Your task to perform on an android device: Go to Reddit.com Image 0: 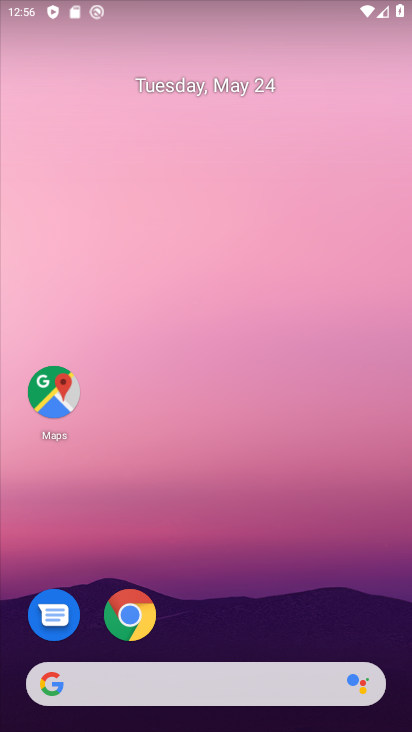
Step 0: click (129, 606)
Your task to perform on an android device: Go to Reddit.com Image 1: 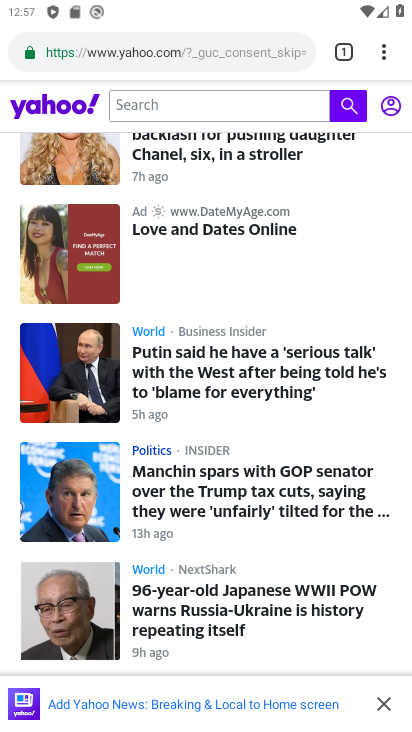
Step 1: click (129, 606)
Your task to perform on an android device: Go to Reddit.com Image 2: 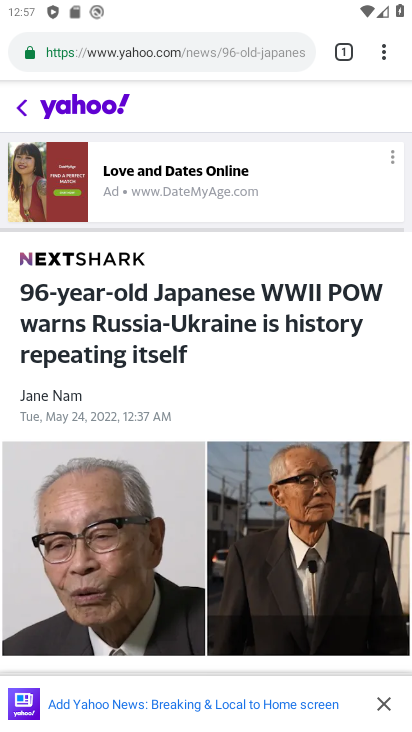
Step 2: click (343, 48)
Your task to perform on an android device: Go to Reddit.com Image 3: 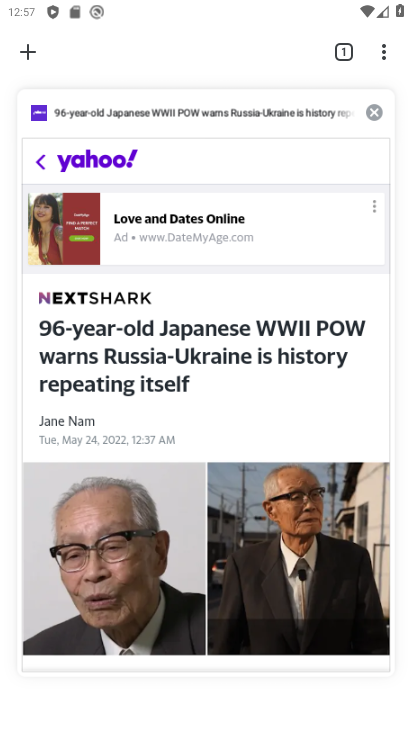
Step 3: click (374, 103)
Your task to perform on an android device: Go to Reddit.com Image 4: 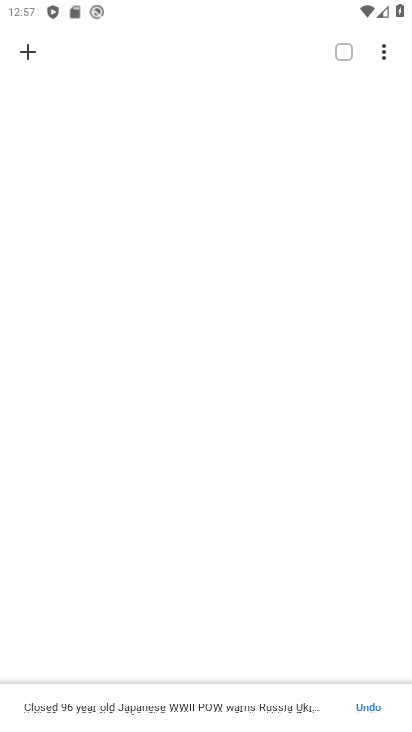
Step 4: click (31, 50)
Your task to perform on an android device: Go to Reddit.com Image 5: 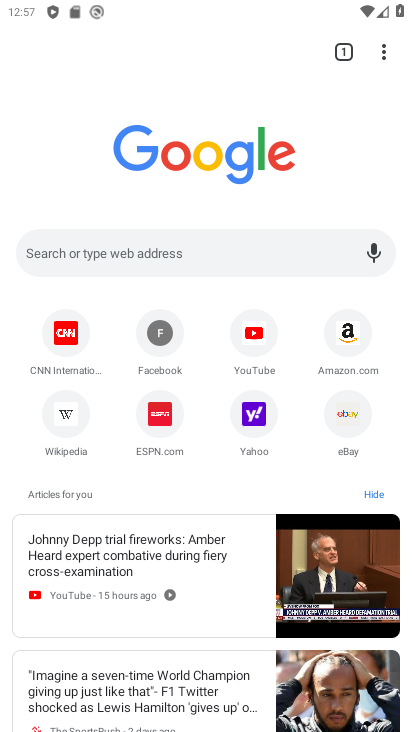
Step 5: click (388, 47)
Your task to perform on an android device: Go to Reddit.com Image 6: 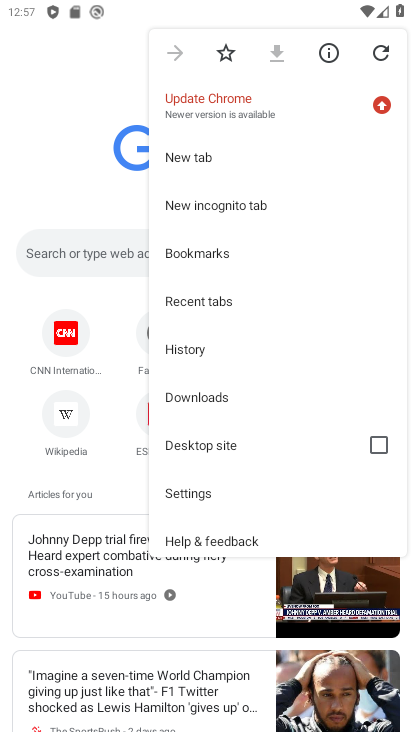
Step 6: click (64, 178)
Your task to perform on an android device: Go to Reddit.com Image 7: 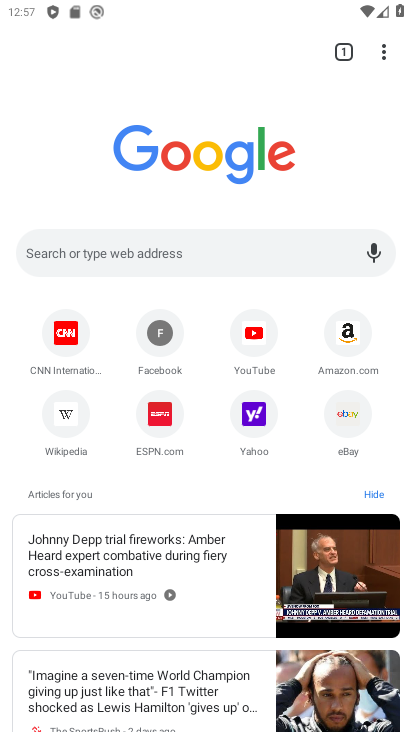
Step 7: click (118, 251)
Your task to perform on an android device: Go to Reddit.com Image 8: 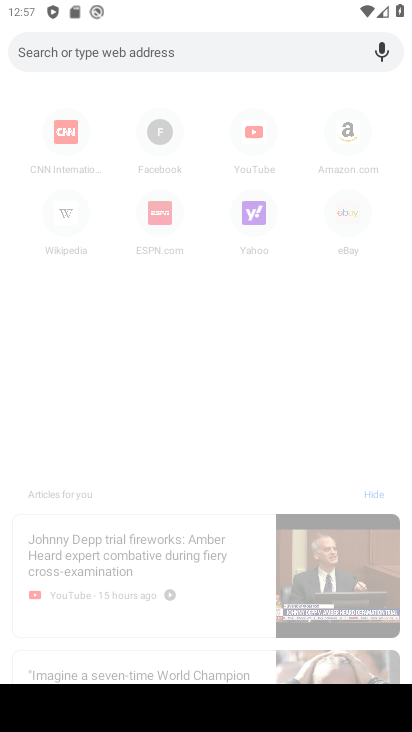
Step 8: type "reddit"
Your task to perform on an android device: Go to Reddit.com Image 9: 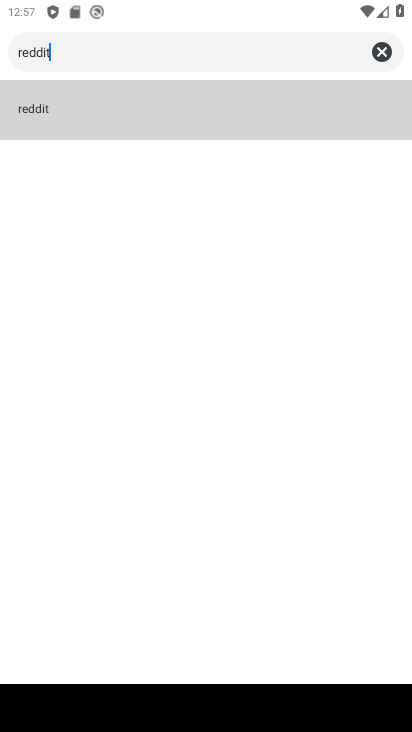
Step 9: type ""
Your task to perform on an android device: Go to Reddit.com Image 10: 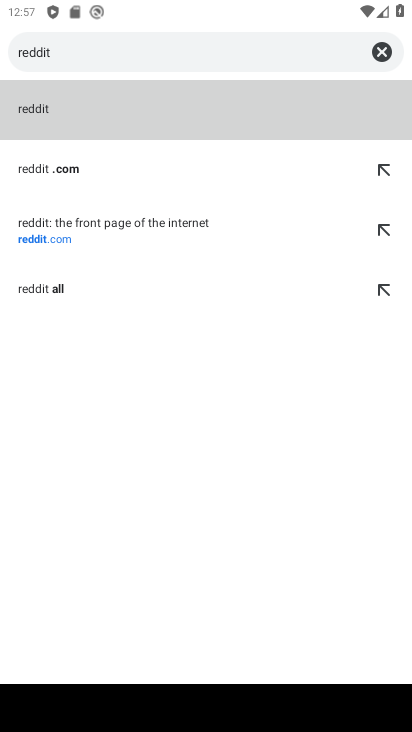
Step 10: click (86, 234)
Your task to perform on an android device: Go to Reddit.com Image 11: 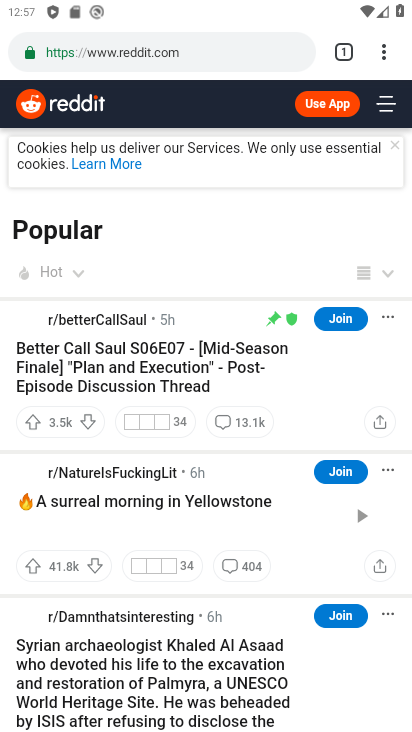
Step 11: drag from (275, 583) to (274, 305)
Your task to perform on an android device: Go to Reddit.com Image 12: 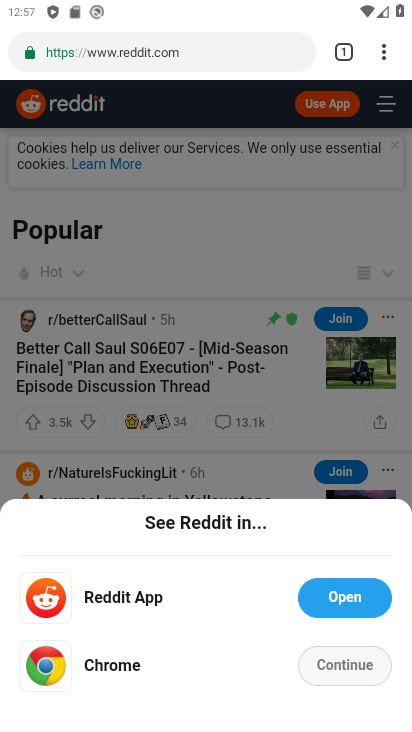
Step 12: click (349, 662)
Your task to perform on an android device: Go to Reddit.com Image 13: 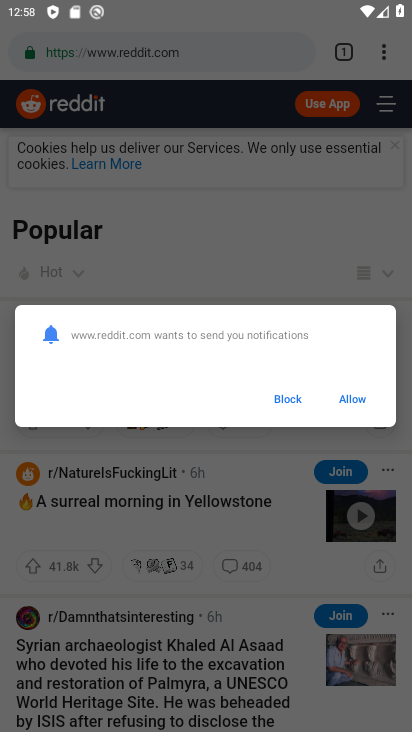
Step 13: click (293, 401)
Your task to perform on an android device: Go to Reddit.com Image 14: 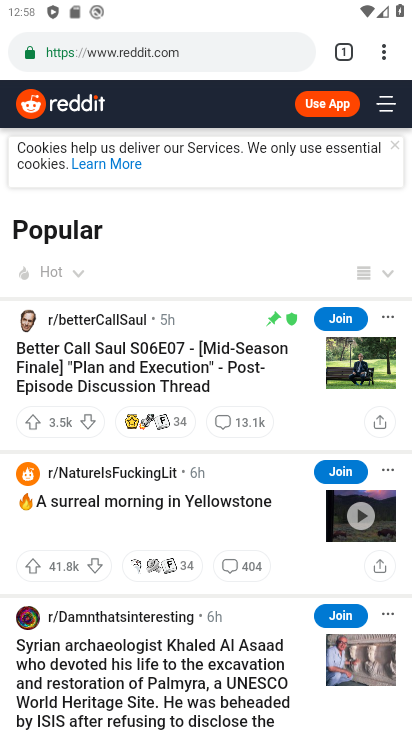
Step 14: task complete